Your task to perform on an android device: What's the weather going to be this weekend? Image 0: 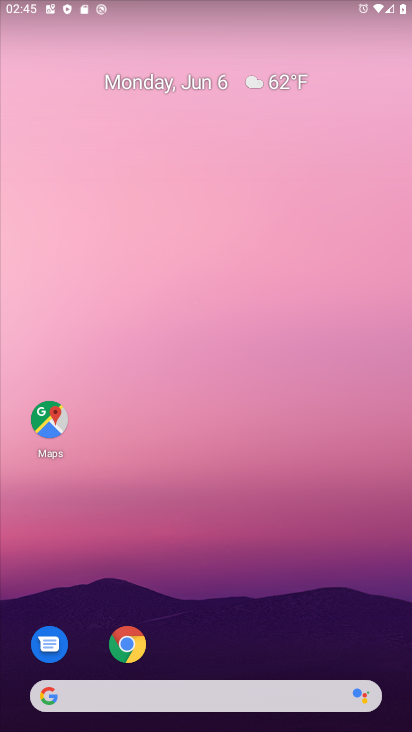
Step 0: click (194, 700)
Your task to perform on an android device: What's the weather going to be this weekend? Image 1: 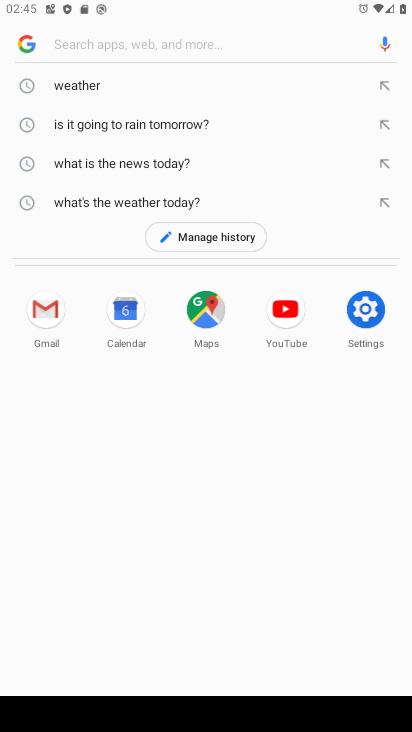
Step 1: type "weather this weekend"
Your task to perform on an android device: What's the weather going to be this weekend? Image 2: 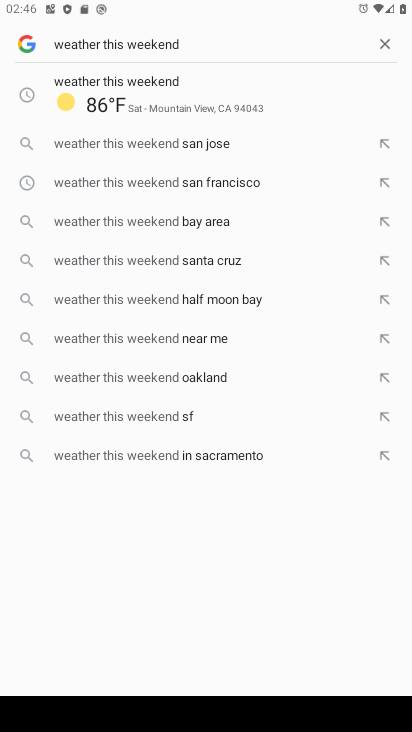
Step 2: click (223, 95)
Your task to perform on an android device: What's the weather going to be this weekend? Image 3: 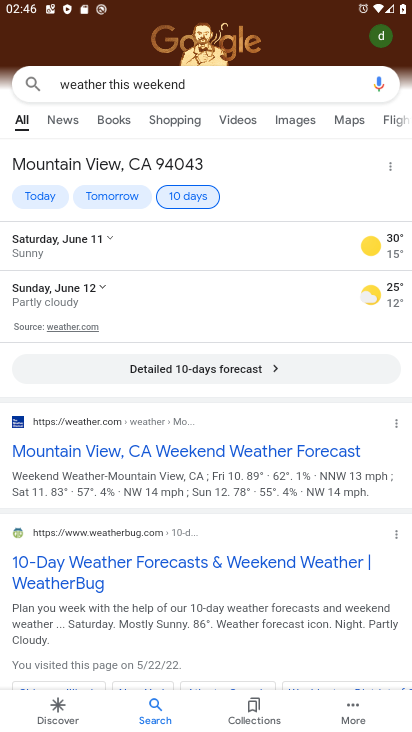
Step 3: click (214, 371)
Your task to perform on an android device: What's the weather going to be this weekend? Image 4: 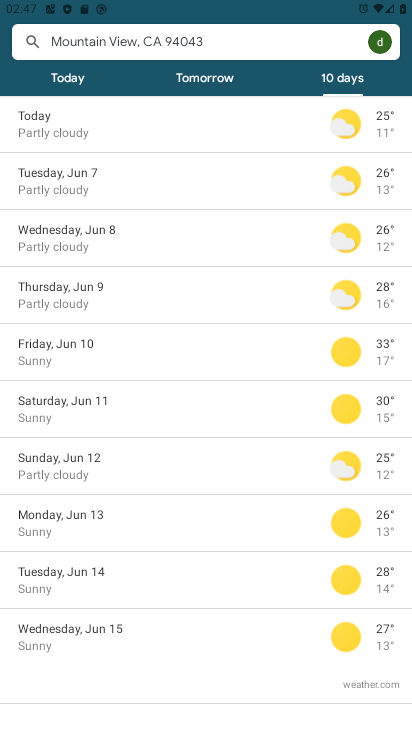
Step 4: task complete